Your task to perform on an android device: open chrome and create a bookmark for the current page Image 0: 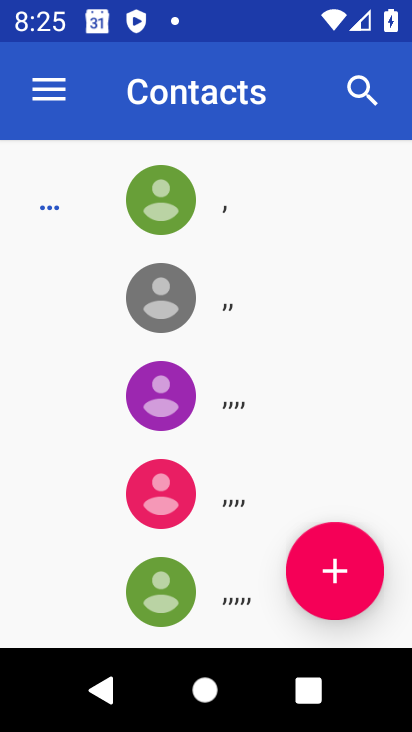
Step 0: press home button
Your task to perform on an android device: open chrome and create a bookmark for the current page Image 1: 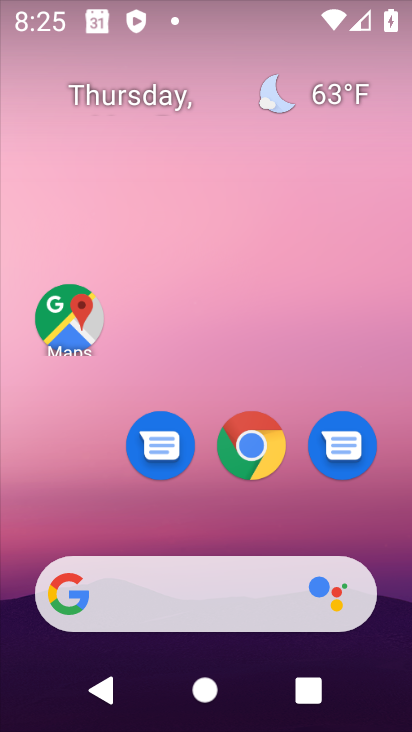
Step 1: click (254, 438)
Your task to perform on an android device: open chrome and create a bookmark for the current page Image 2: 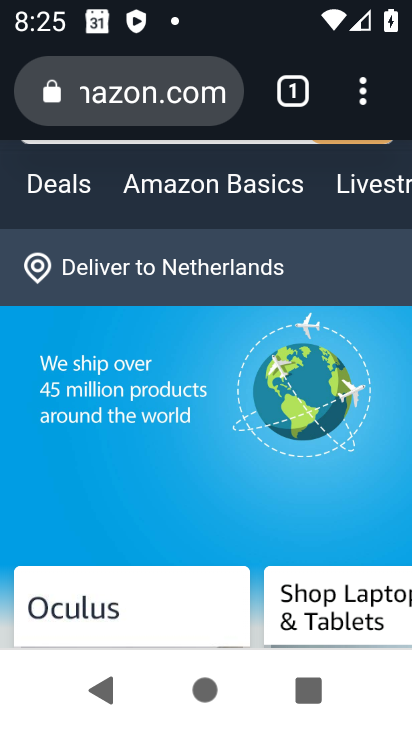
Step 2: click (354, 99)
Your task to perform on an android device: open chrome and create a bookmark for the current page Image 3: 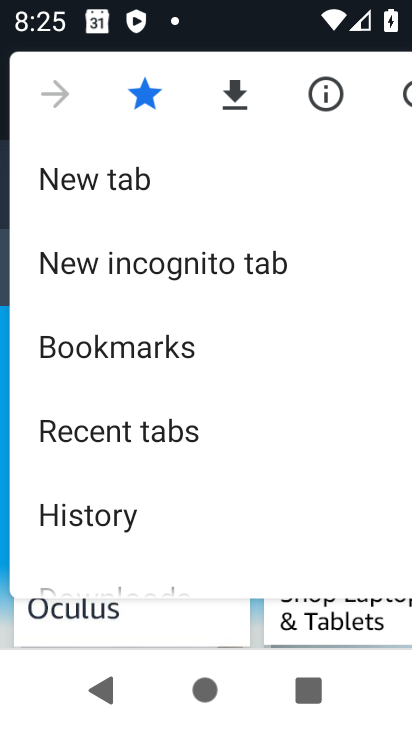
Step 3: task complete